Your task to perform on an android device: open chrome and create a bookmark for the current page Image 0: 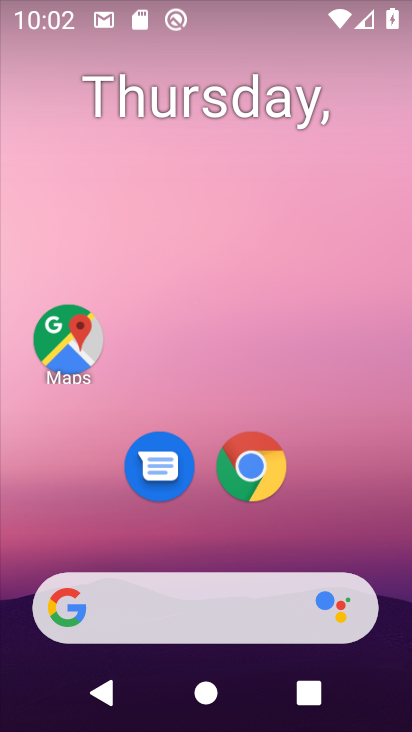
Step 0: drag from (135, 611) to (313, 186)
Your task to perform on an android device: open chrome and create a bookmark for the current page Image 1: 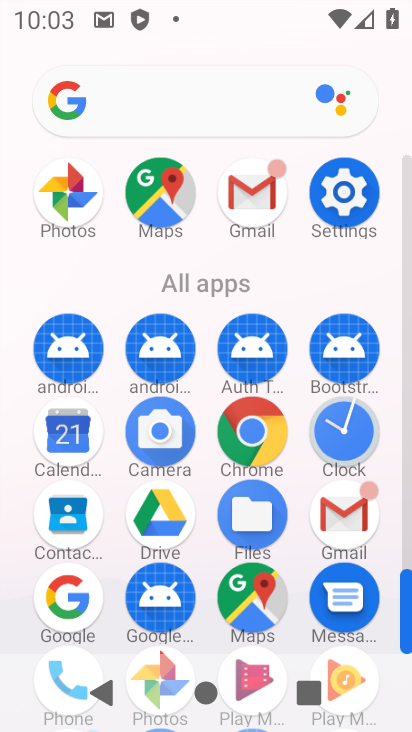
Step 1: click (254, 425)
Your task to perform on an android device: open chrome and create a bookmark for the current page Image 2: 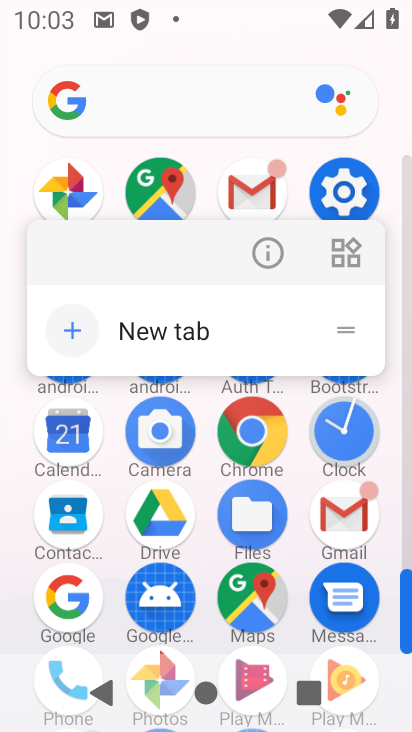
Step 2: click (244, 445)
Your task to perform on an android device: open chrome and create a bookmark for the current page Image 3: 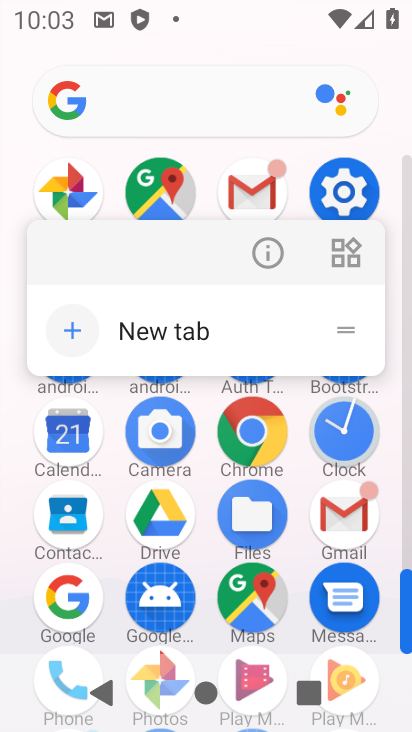
Step 3: click (251, 437)
Your task to perform on an android device: open chrome and create a bookmark for the current page Image 4: 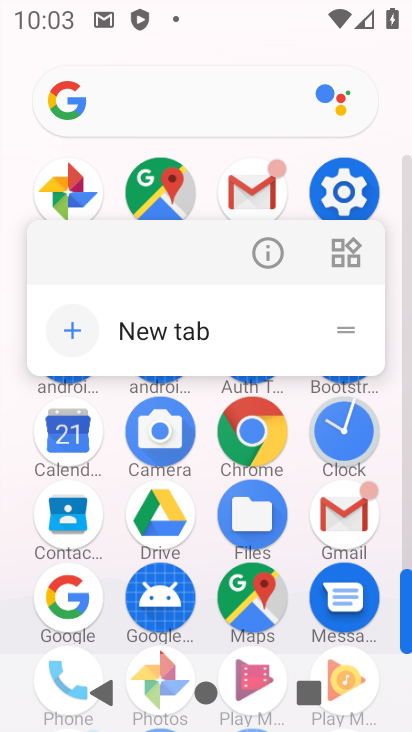
Step 4: click (252, 437)
Your task to perform on an android device: open chrome and create a bookmark for the current page Image 5: 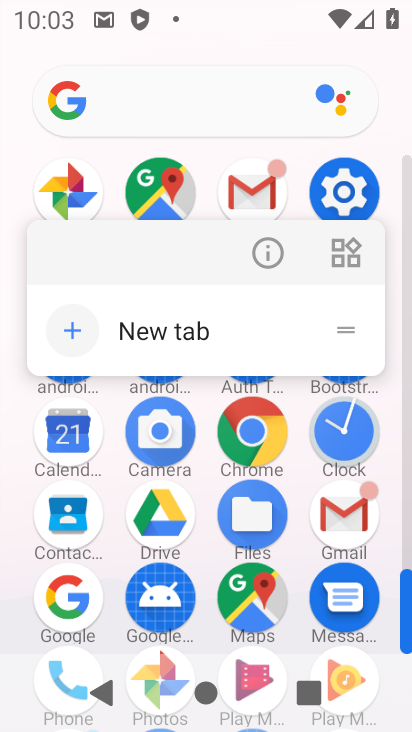
Step 5: click (252, 439)
Your task to perform on an android device: open chrome and create a bookmark for the current page Image 6: 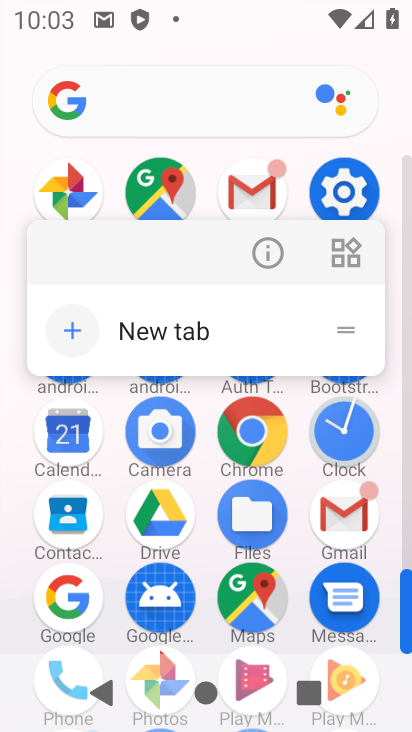
Step 6: click (266, 443)
Your task to perform on an android device: open chrome and create a bookmark for the current page Image 7: 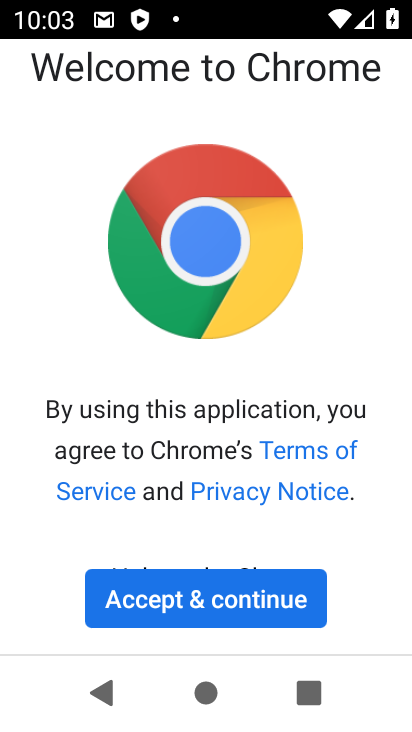
Step 7: click (220, 583)
Your task to perform on an android device: open chrome and create a bookmark for the current page Image 8: 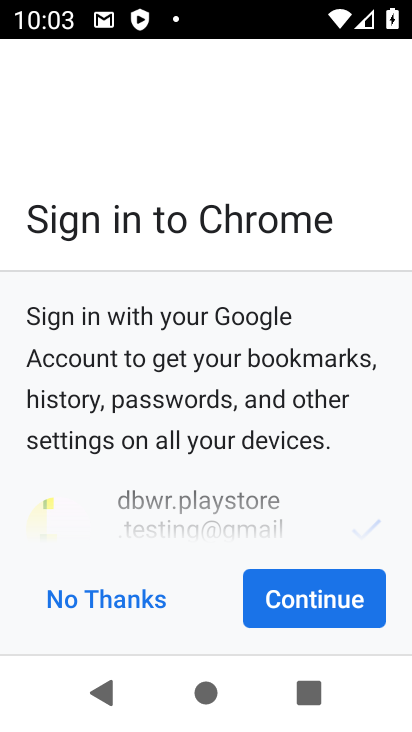
Step 8: click (293, 592)
Your task to perform on an android device: open chrome and create a bookmark for the current page Image 9: 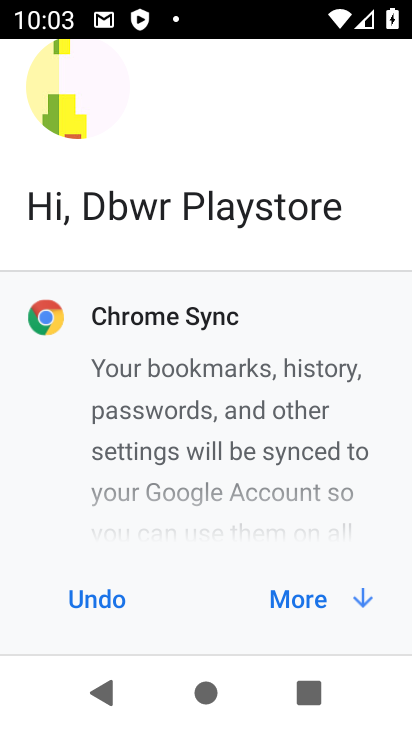
Step 9: click (293, 597)
Your task to perform on an android device: open chrome and create a bookmark for the current page Image 10: 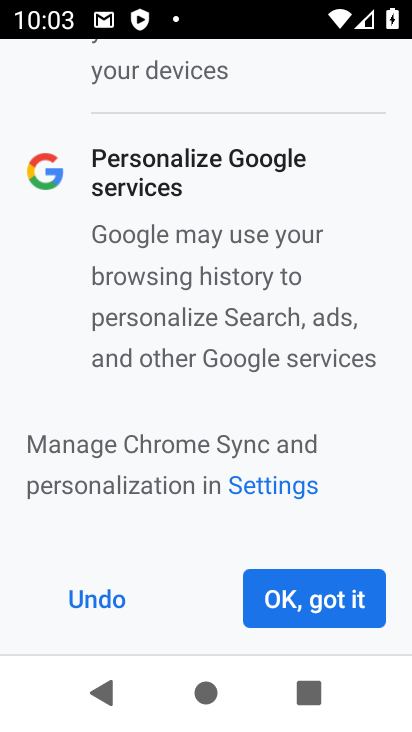
Step 10: click (293, 602)
Your task to perform on an android device: open chrome and create a bookmark for the current page Image 11: 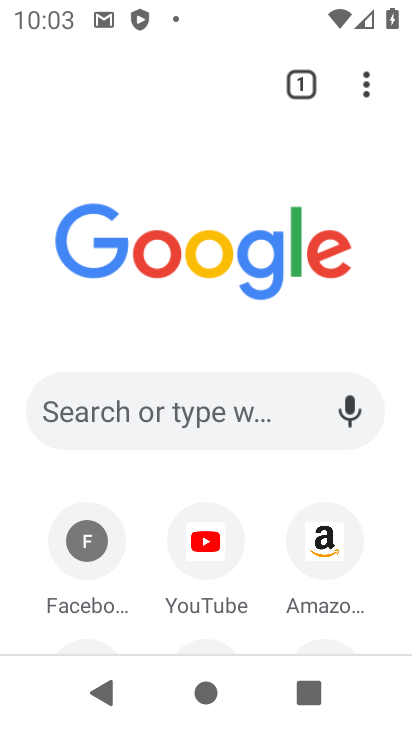
Step 11: click (357, 98)
Your task to perform on an android device: open chrome and create a bookmark for the current page Image 12: 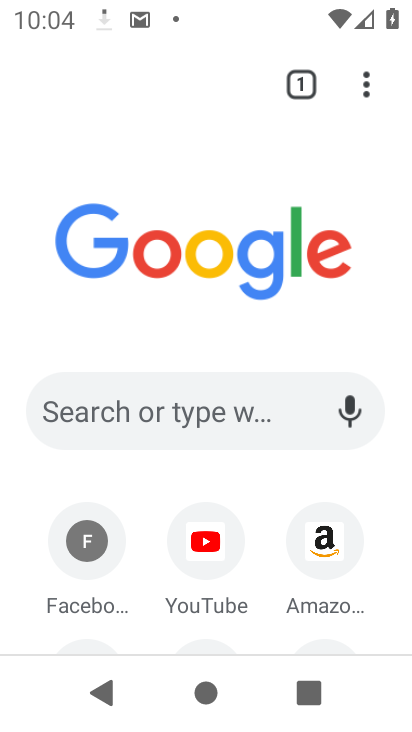
Step 12: click (364, 93)
Your task to perform on an android device: open chrome and create a bookmark for the current page Image 13: 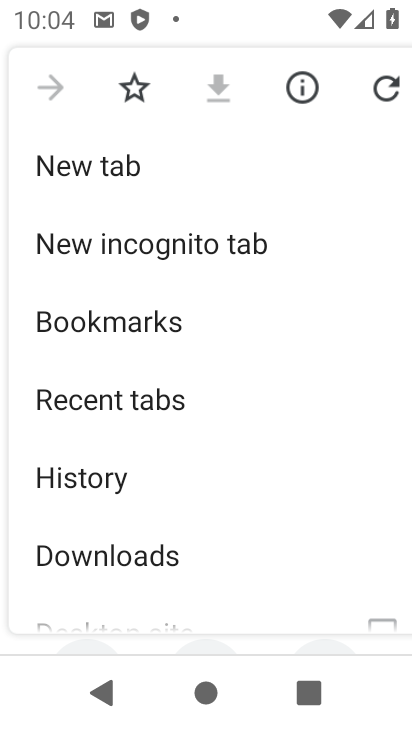
Step 13: click (136, 88)
Your task to perform on an android device: open chrome and create a bookmark for the current page Image 14: 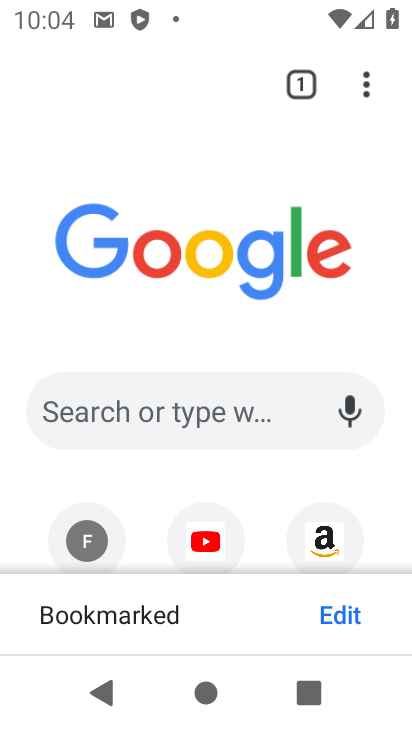
Step 14: task complete